Your task to perform on an android device: What is the recent news? Image 0: 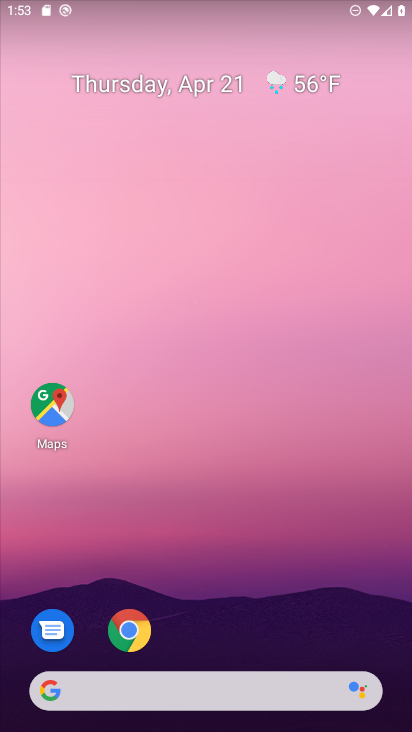
Step 0: drag from (37, 469) to (401, 436)
Your task to perform on an android device: What is the recent news? Image 1: 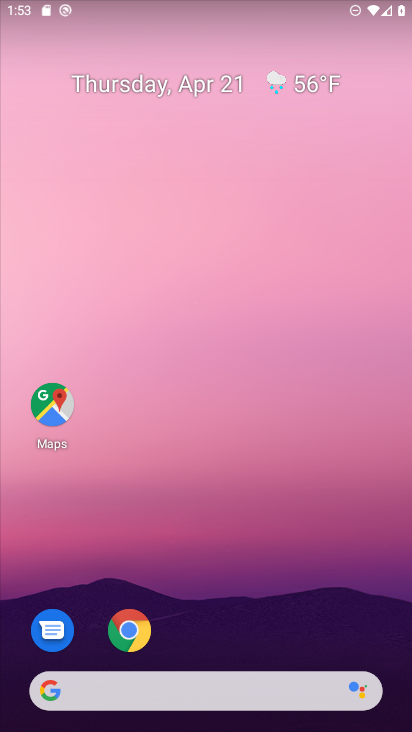
Step 1: task complete